Your task to perform on an android device: What's the weather? Image 0: 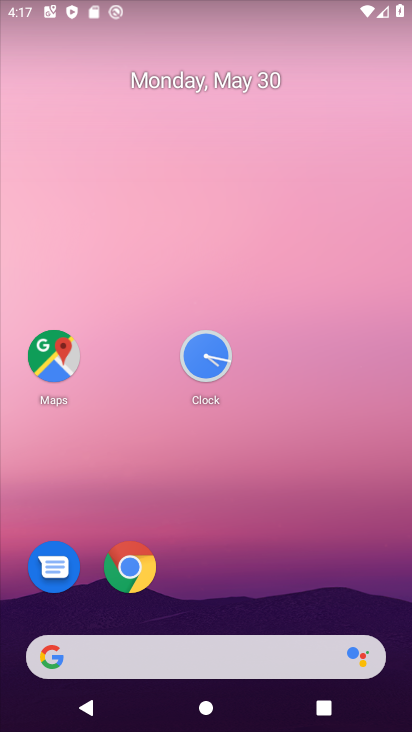
Step 0: drag from (233, 618) to (128, 101)
Your task to perform on an android device: What's the weather? Image 1: 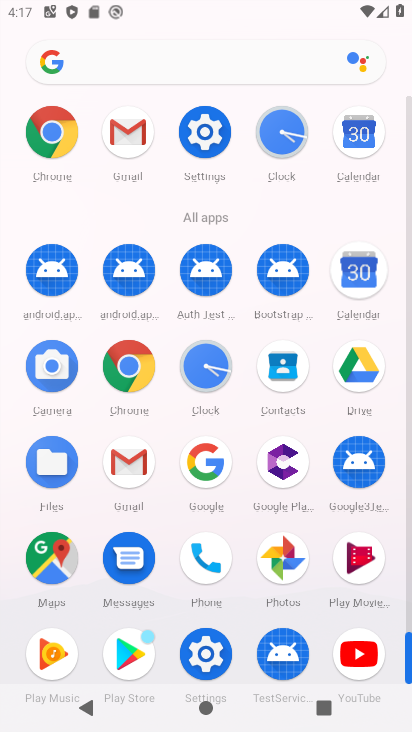
Step 1: press back button
Your task to perform on an android device: What's the weather? Image 2: 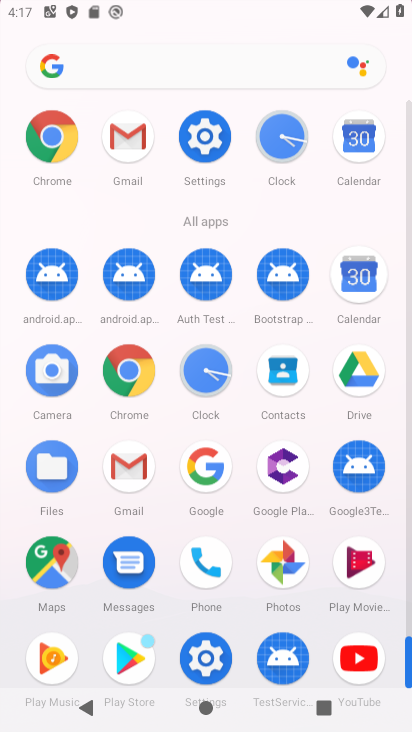
Step 2: press back button
Your task to perform on an android device: What's the weather? Image 3: 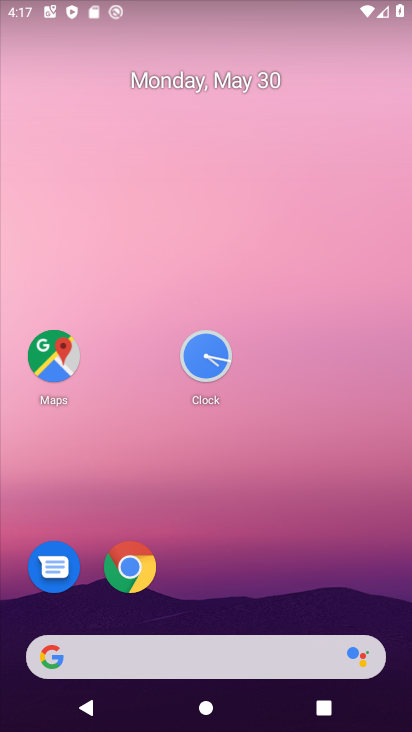
Step 3: press back button
Your task to perform on an android device: What's the weather? Image 4: 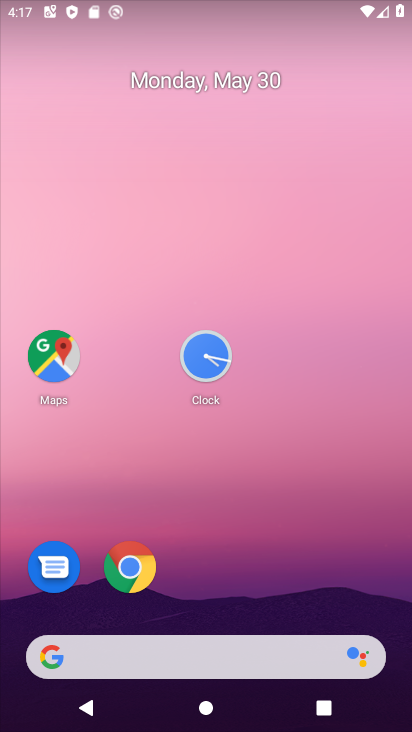
Step 4: drag from (1, 161) to (402, 361)
Your task to perform on an android device: What's the weather? Image 5: 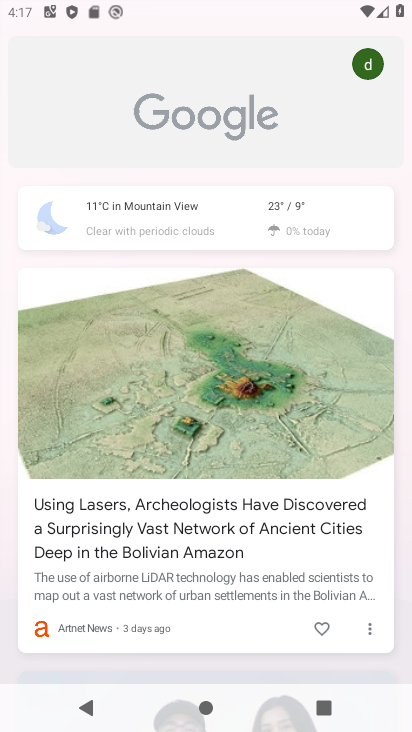
Step 5: click (152, 210)
Your task to perform on an android device: What's the weather? Image 6: 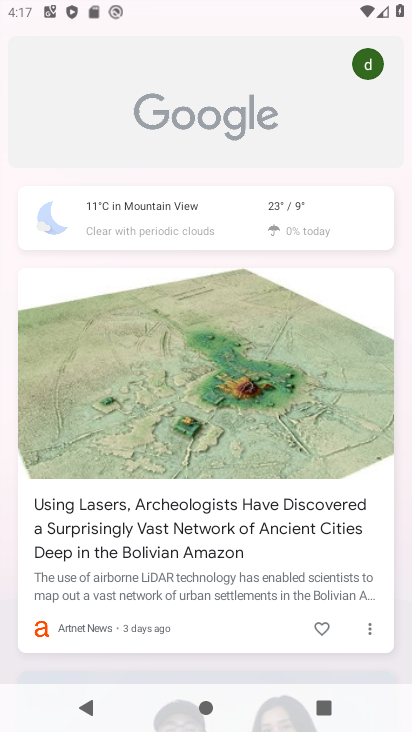
Step 6: click (156, 219)
Your task to perform on an android device: What's the weather? Image 7: 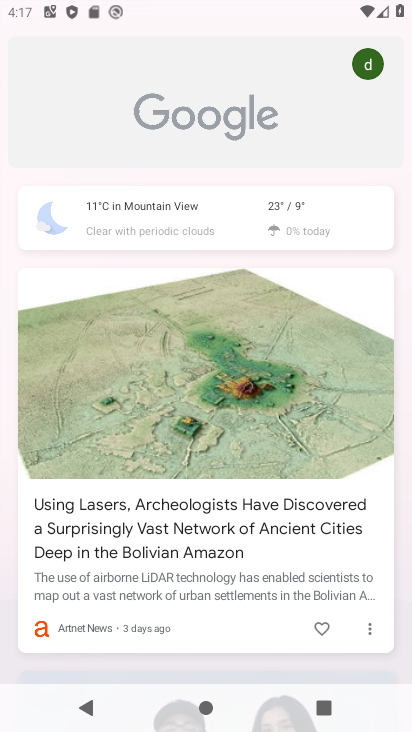
Step 7: click (177, 230)
Your task to perform on an android device: What's the weather? Image 8: 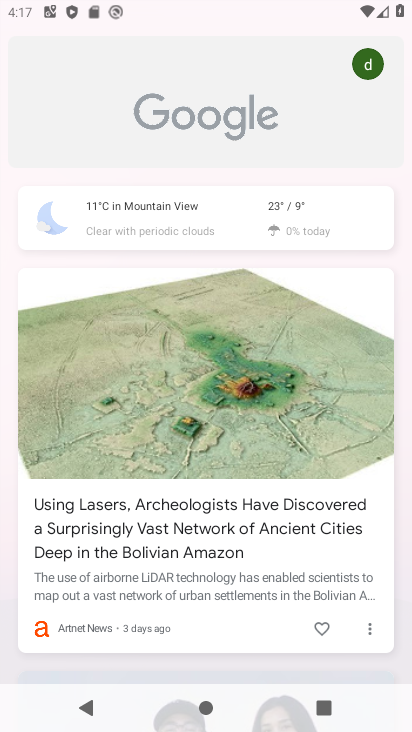
Step 8: click (177, 230)
Your task to perform on an android device: What's the weather? Image 9: 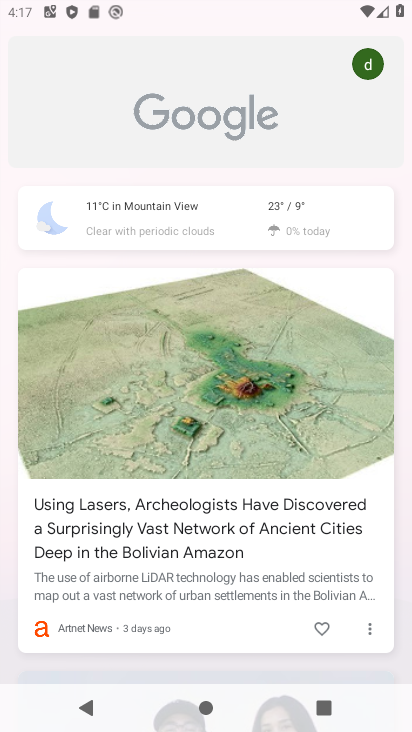
Step 9: click (177, 230)
Your task to perform on an android device: What's the weather? Image 10: 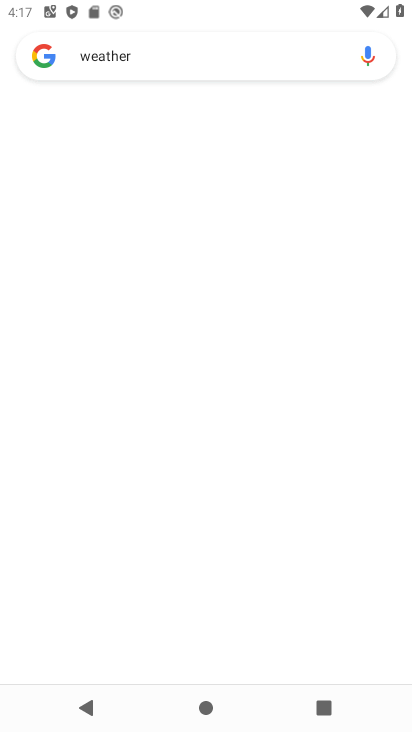
Step 10: click (214, 230)
Your task to perform on an android device: What's the weather? Image 11: 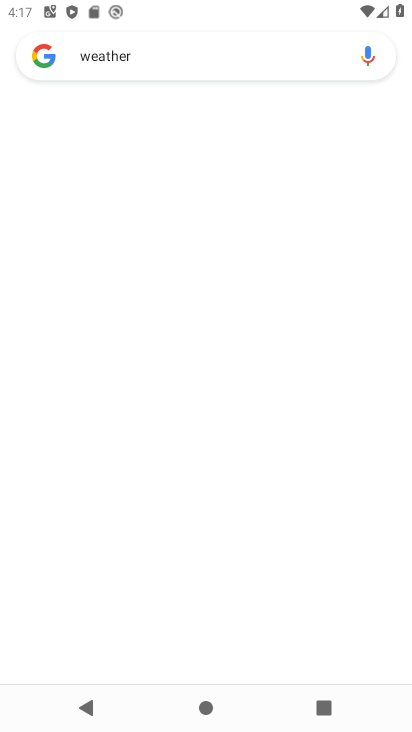
Step 11: click (221, 227)
Your task to perform on an android device: What's the weather? Image 12: 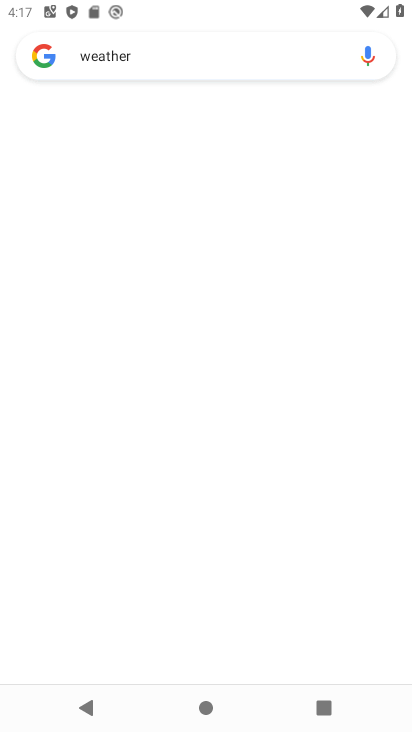
Step 12: click (237, 219)
Your task to perform on an android device: What's the weather? Image 13: 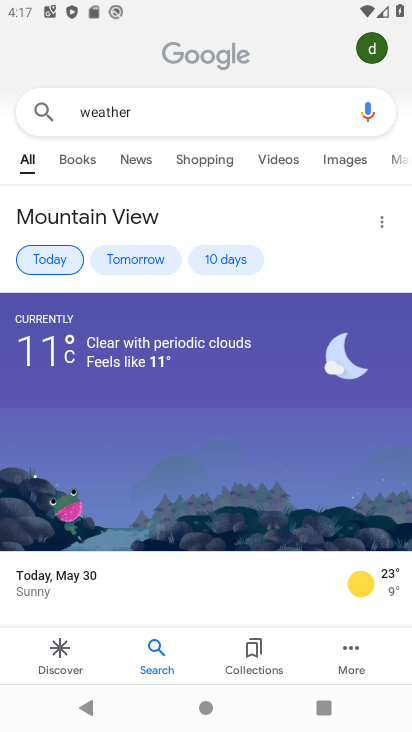
Step 13: click (130, 256)
Your task to perform on an android device: What's the weather? Image 14: 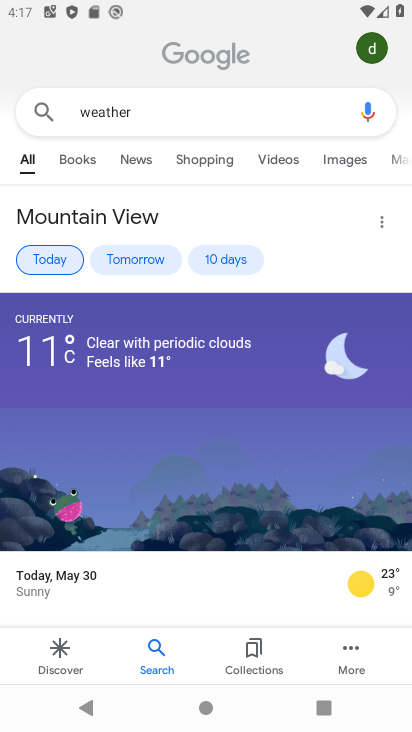
Step 14: click (133, 258)
Your task to perform on an android device: What's the weather? Image 15: 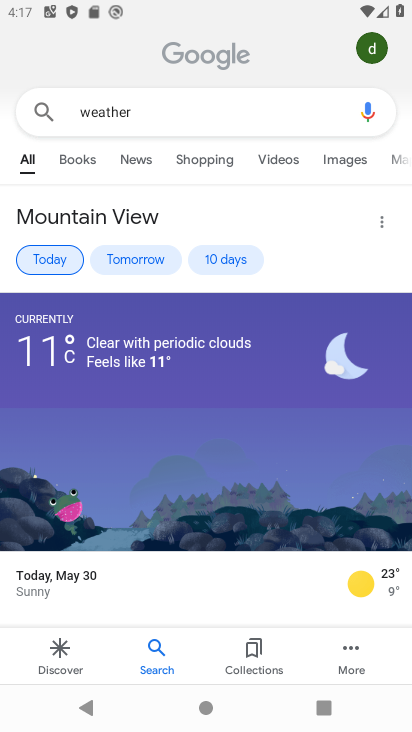
Step 15: click (133, 258)
Your task to perform on an android device: What's the weather? Image 16: 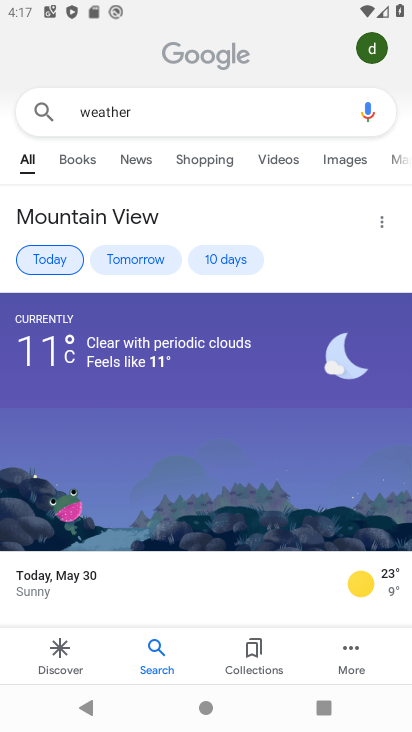
Step 16: click (134, 257)
Your task to perform on an android device: What's the weather? Image 17: 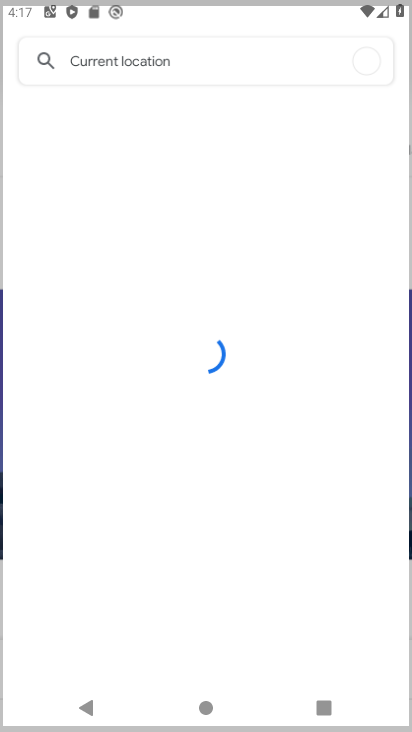
Step 17: click (135, 256)
Your task to perform on an android device: What's the weather? Image 18: 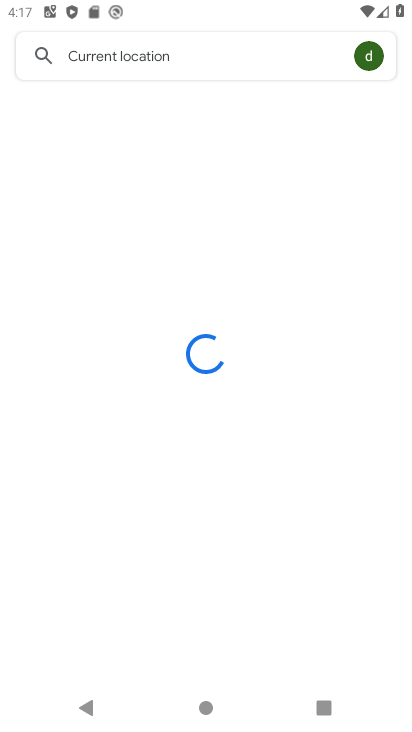
Step 18: click (141, 256)
Your task to perform on an android device: What's the weather? Image 19: 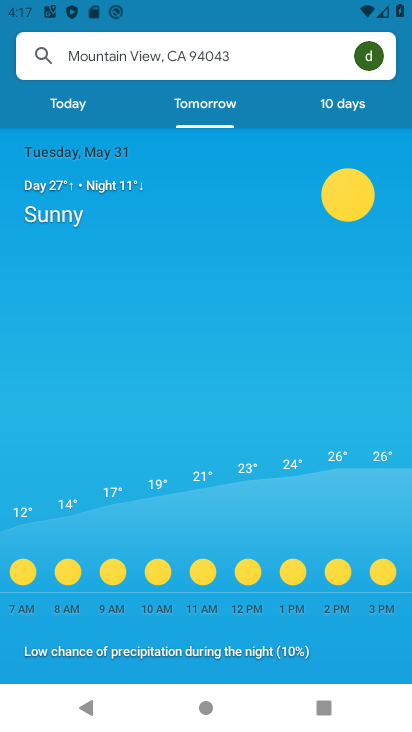
Step 19: task complete